Your task to perform on an android device: turn off airplane mode Image 0: 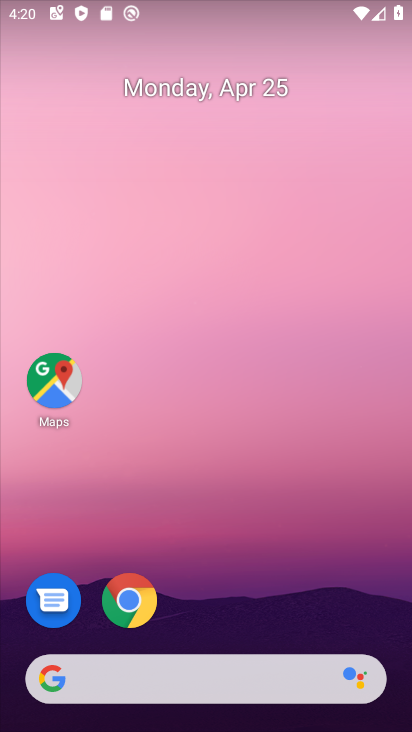
Step 0: drag from (284, 522) to (233, 19)
Your task to perform on an android device: turn off airplane mode Image 1: 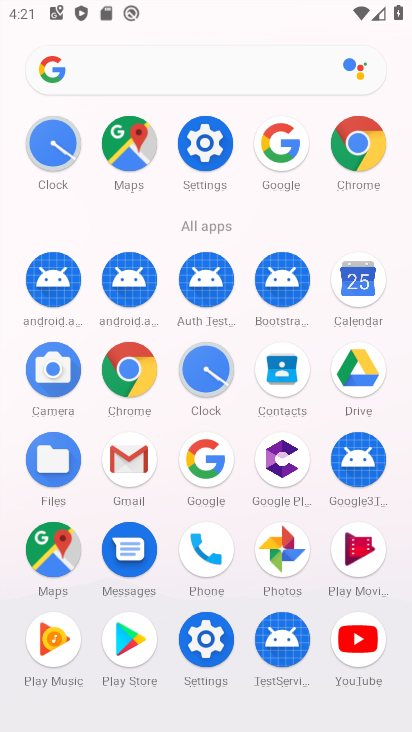
Step 1: click (207, 634)
Your task to perform on an android device: turn off airplane mode Image 2: 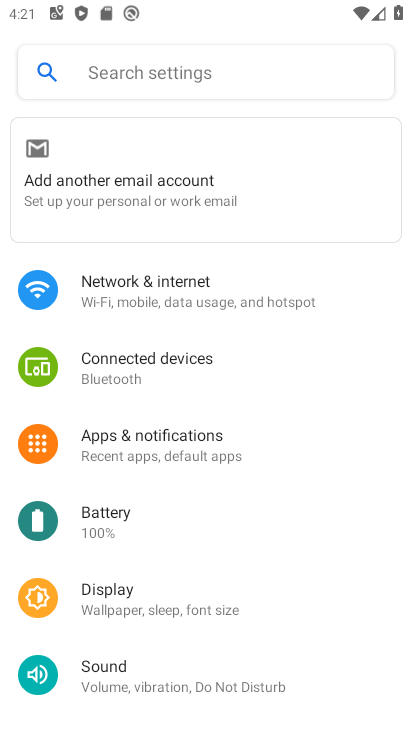
Step 2: click (255, 299)
Your task to perform on an android device: turn off airplane mode Image 3: 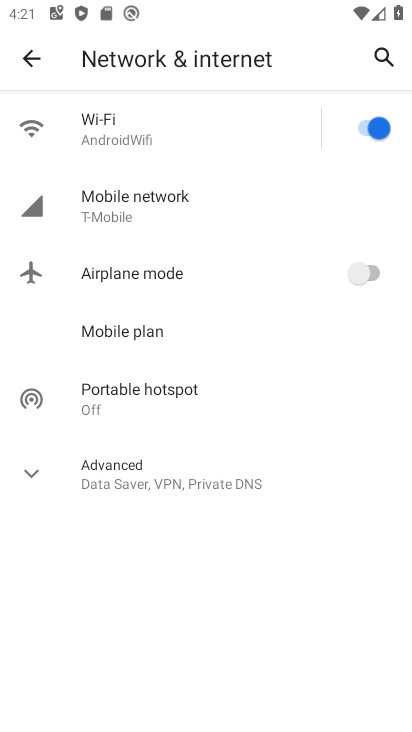
Step 3: task complete